Your task to perform on an android device: Go to Yahoo.com Image 0: 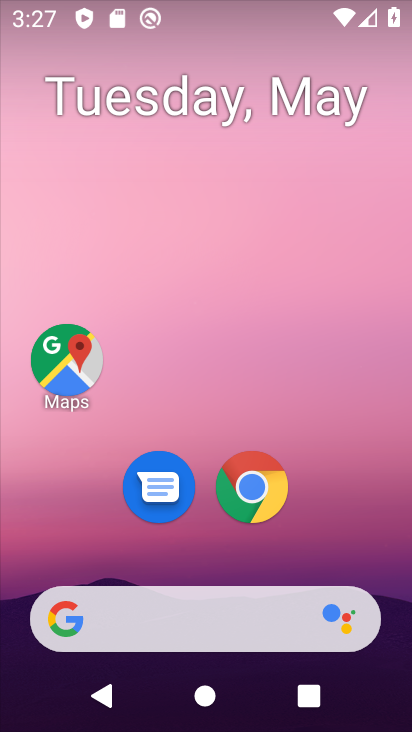
Step 0: click (272, 463)
Your task to perform on an android device: Go to Yahoo.com Image 1: 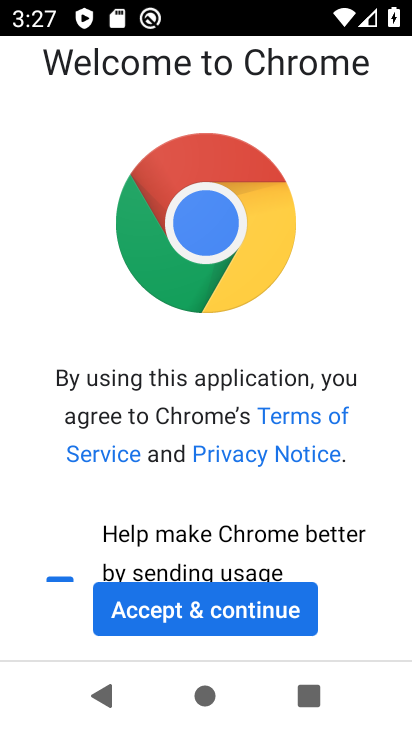
Step 1: click (222, 619)
Your task to perform on an android device: Go to Yahoo.com Image 2: 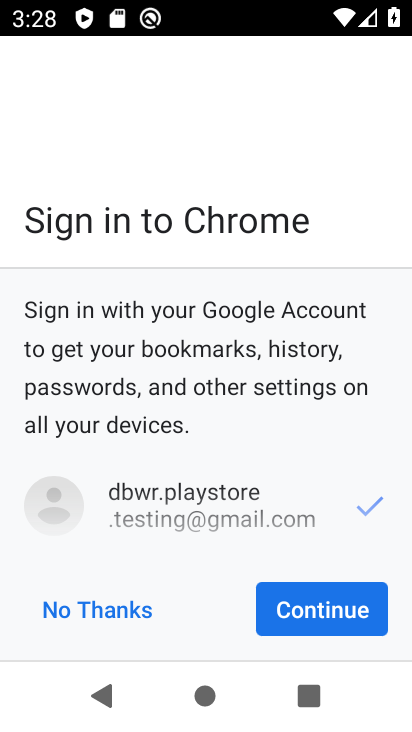
Step 2: click (318, 615)
Your task to perform on an android device: Go to Yahoo.com Image 3: 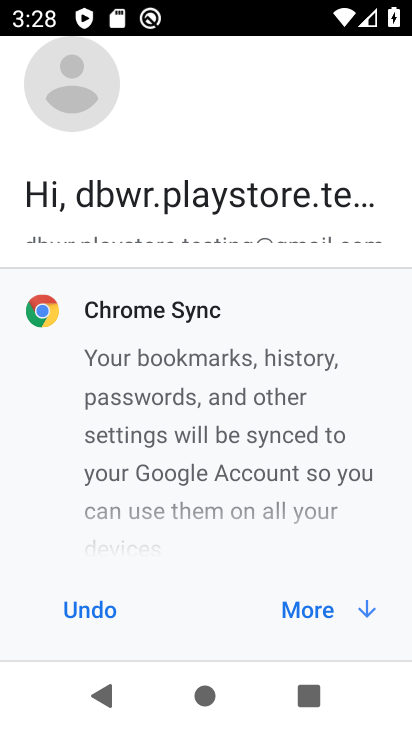
Step 3: click (318, 614)
Your task to perform on an android device: Go to Yahoo.com Image 4: 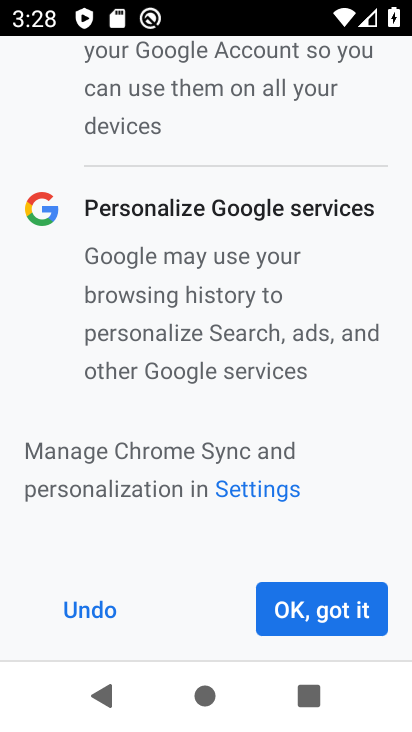
Step 4: click (317, 614)
Your task to perform on an android device: Go to Yahoo.com Image 5: 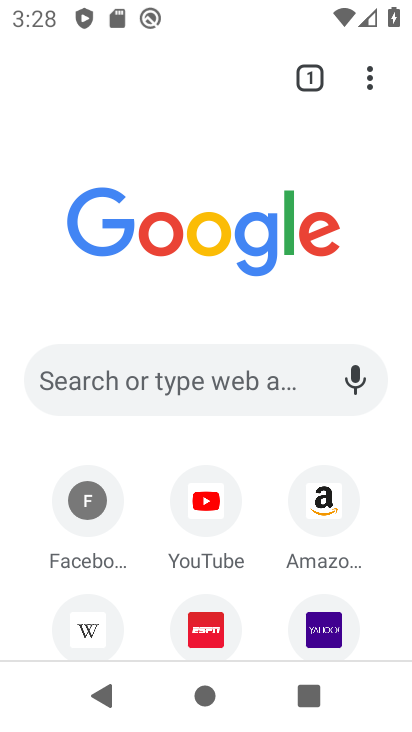
Step 5: click (329, 628)
Your task to perform on an android device: Go to Yahoo.com Image 6: 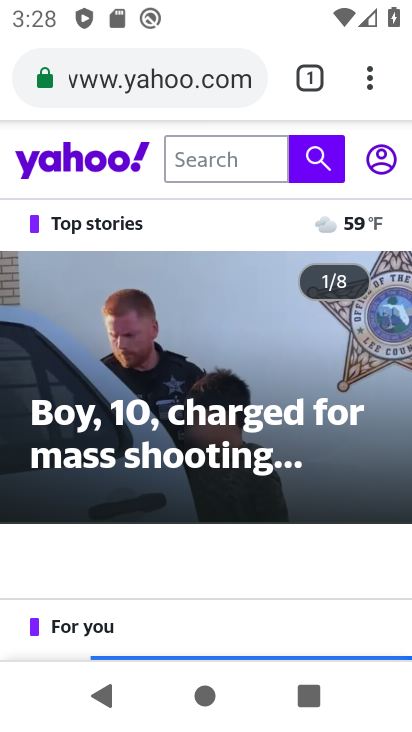
Step 6: task complete